Your task to perform on an android device: turn on the 24-hour format for clock Image 0: 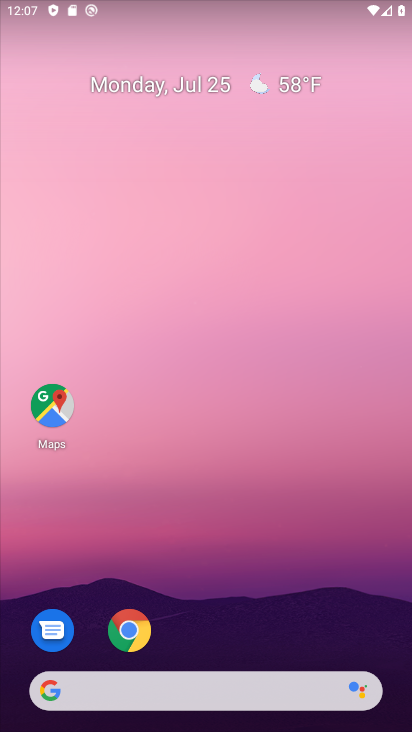
Step 0: drag from (226, 538) to (113, 39)
Your task to perform on an android device: turn on the 24-hour format for clock Image 1: 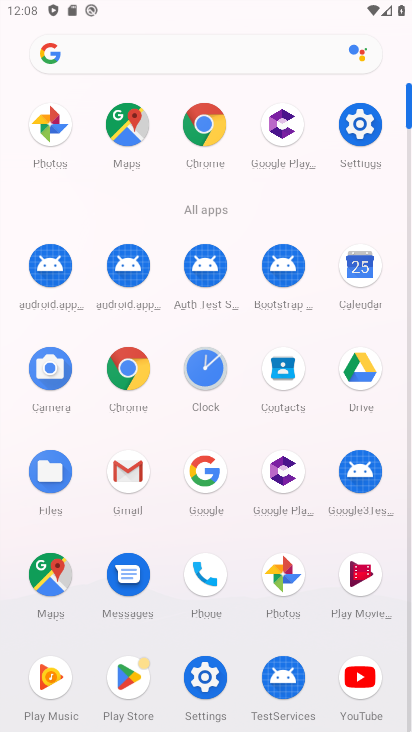
Step 1: click (223, 350)
Your task to perform on an android device: turn on the 24-hour format for clock Image 2: 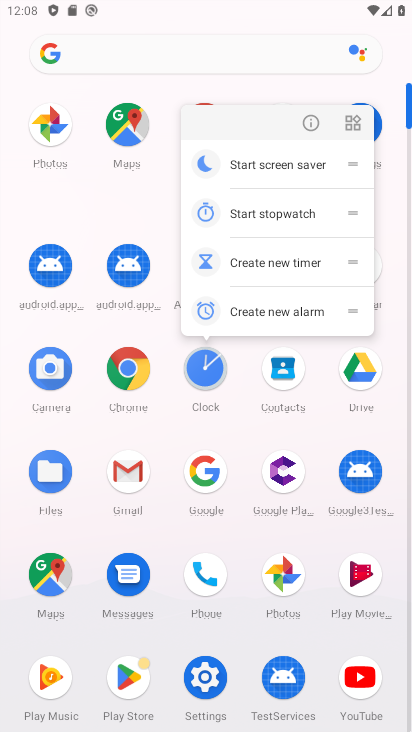
Step 2: click (222, 363)
Your task to perform on an android device: turn on the 24-hour format for clock Image 3: 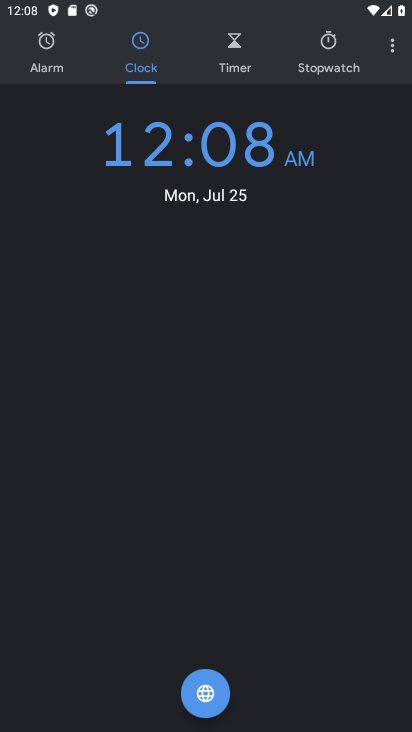
Step 3: click (388, 52)
Your task to perform on an android device: turn on the 24-hour format for clock Image 4: 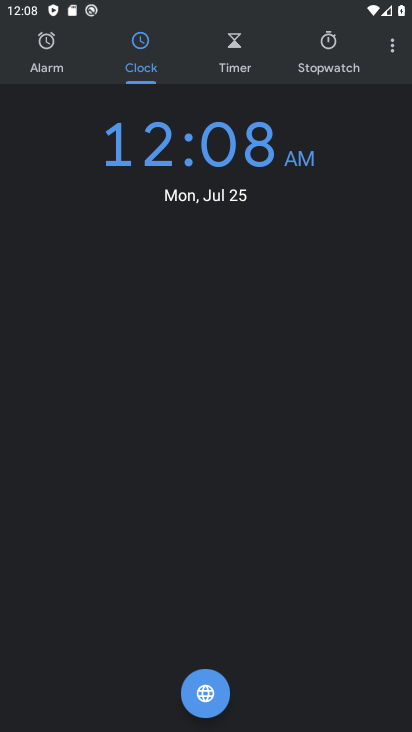
Step 4: click (388, 52)
Your task to perform on an android device: turn on the 24-hour format for clock Image 5: 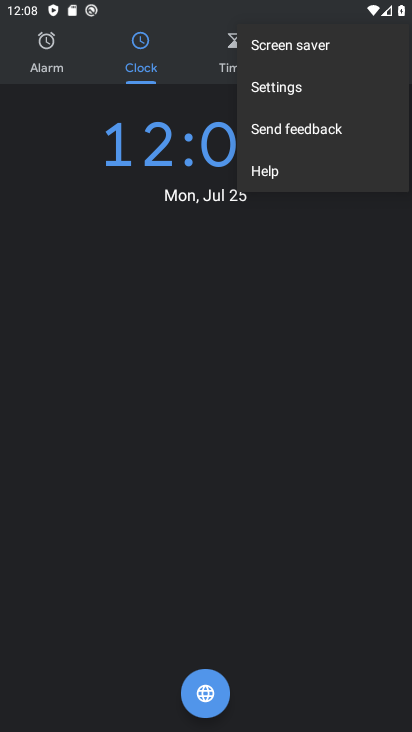
Step 5: click (300, 94)
Your task to perform on an android device: turn on the 24-hour format for clock Image 6: 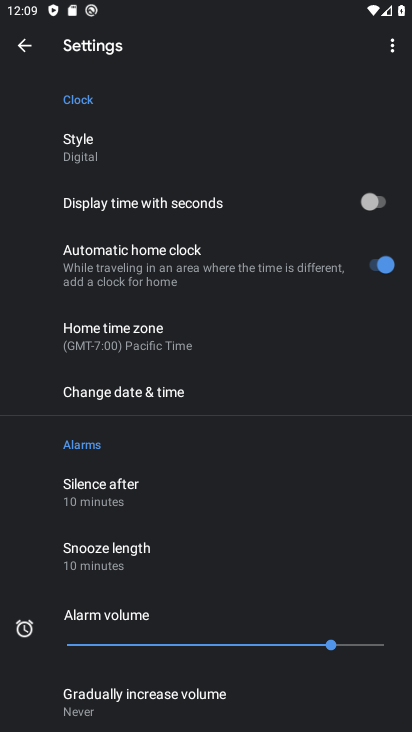
Step 6: click (132, 410)
Your task to perform on an android device: turn on the 24-hour format for clock Image 7: 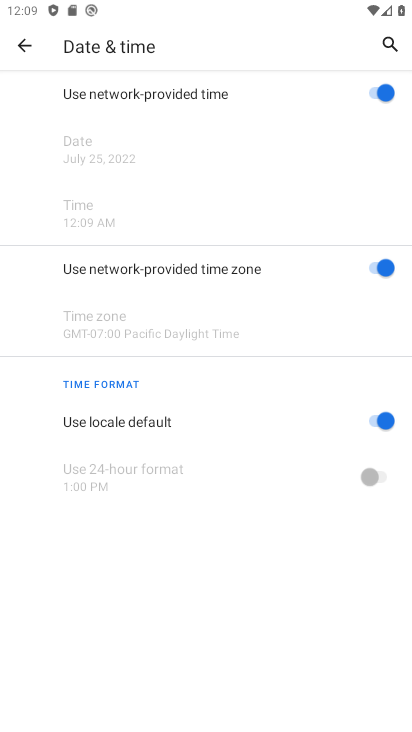
Step 7: click (370, 426)
Your task to perform on an android device: turn on the 24-hour format for clock Image 8: 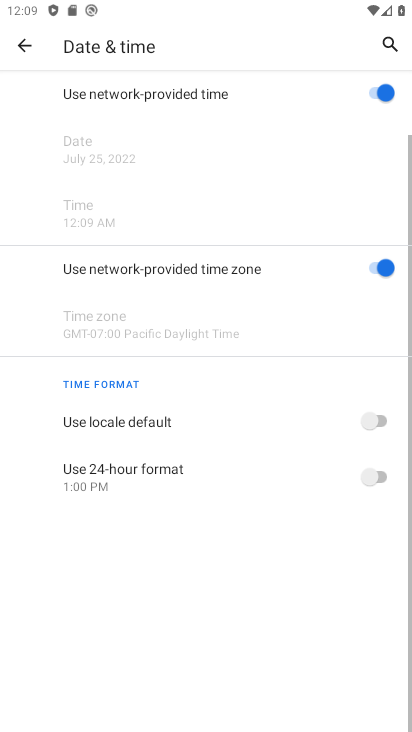
Step 8: click (377, 472)
Your task to perform on an android device: turn on the 24-hour format for clock Image 9: 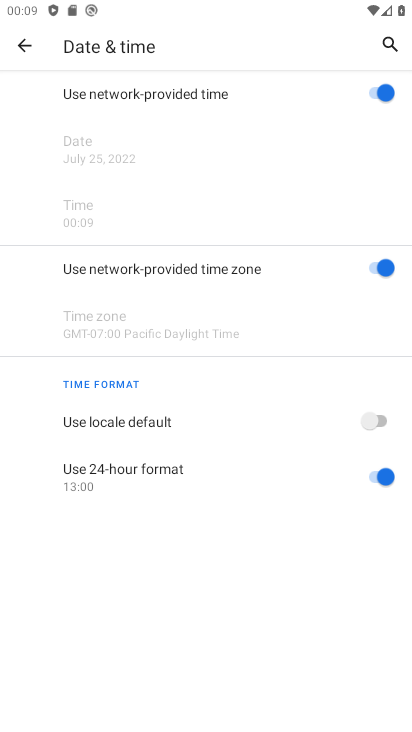
Step 9: task complete